Your task to perform on an android device: allow notifications from all sites in the chrome app Image 0: 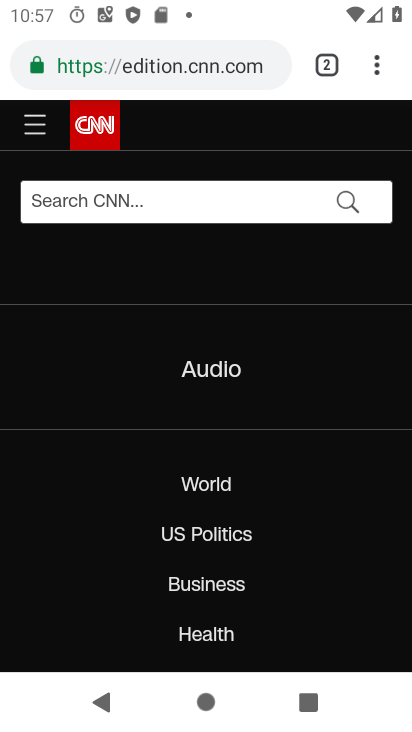
Step 0: press home button
Your task to perform on an android device: allow notifications from all sites in the chrome app Image 1: 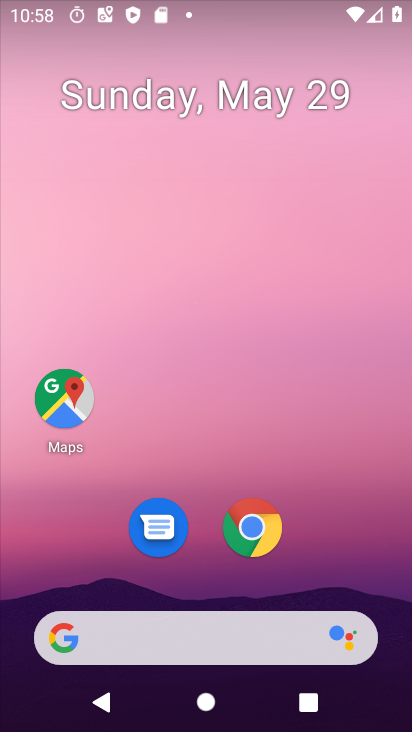
Step 1: drag from (351, 473) to (274, 141)
Your task to perform on an android device: allow notifications from all sites in the chrome app Image 2: 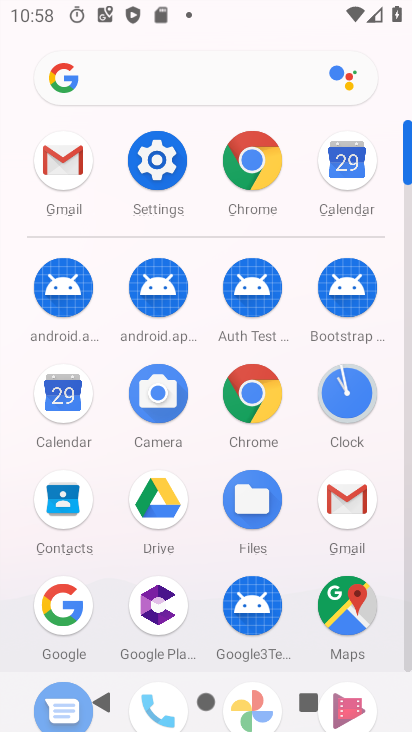
Step 2: click (248, 398)
Your task to perform on an android device: allow notifications from all sites in the chrome app Image 3: 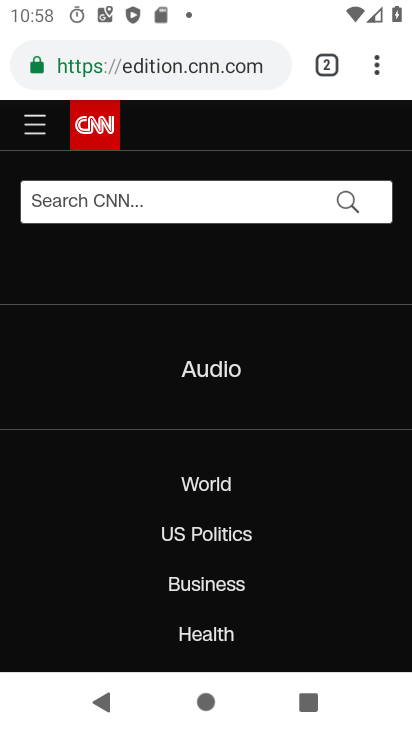
Step 3: drag from (379, 51) to (205, 586)
Your task to perform on an android device: allow notifications from all sites in the chrome app Image 4: 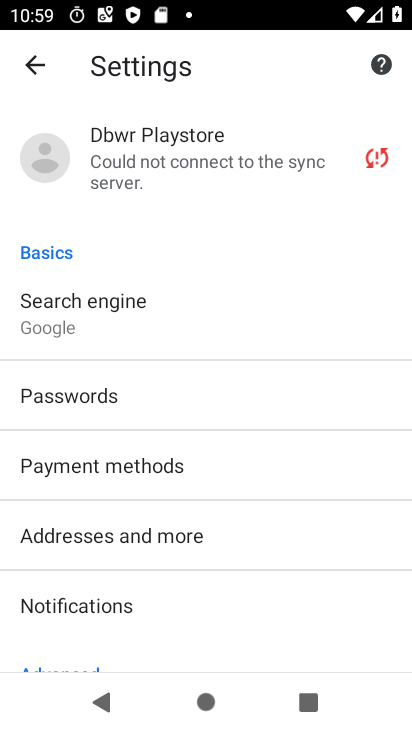
Step 4: drag from (212, 536) to (282, 183)
Your task to perform on an android device: allow notifications from all sites in the chrome app Image 5: 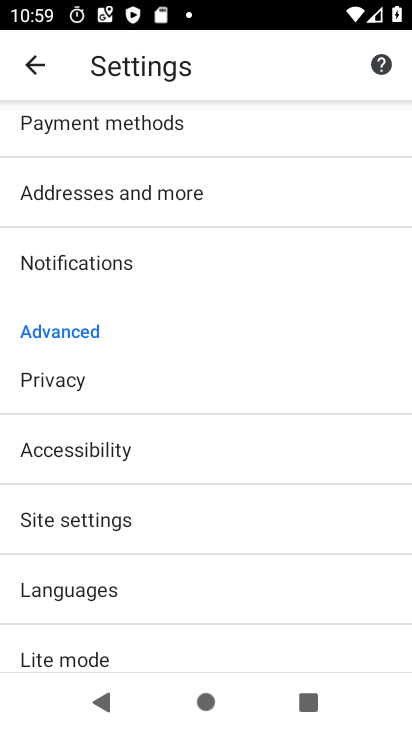
Step 5: click (143, 256)
Your task to perform on an android device: allow notifications from all sites in the chrome app Image 6: 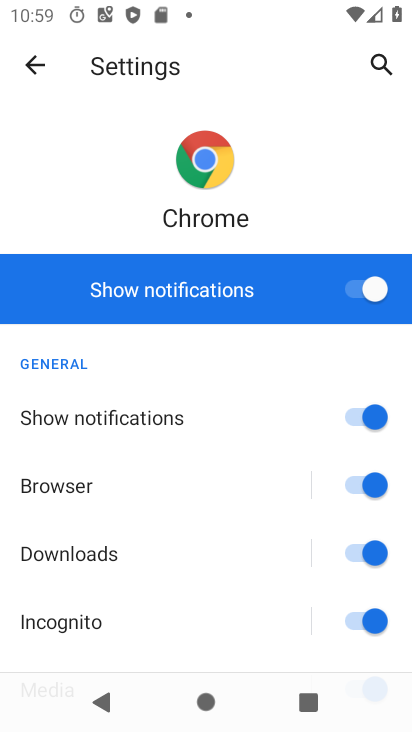
Step 6: task complete